Your task to perform on an android device: turn on location history Image 0: 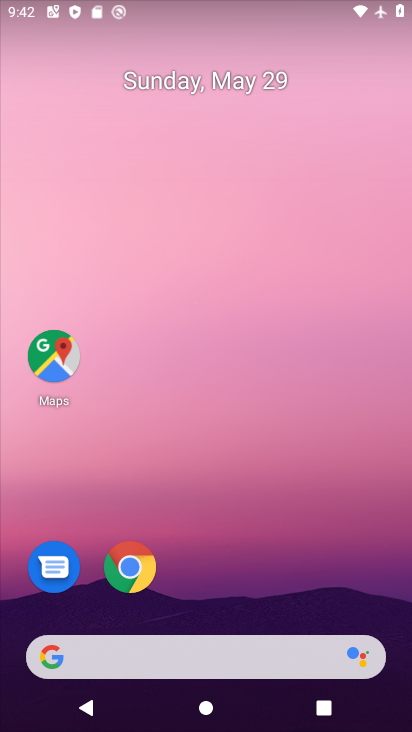
Step 0: click (55, 356)
Your task to perform on an android device: turn on location history Image 1: 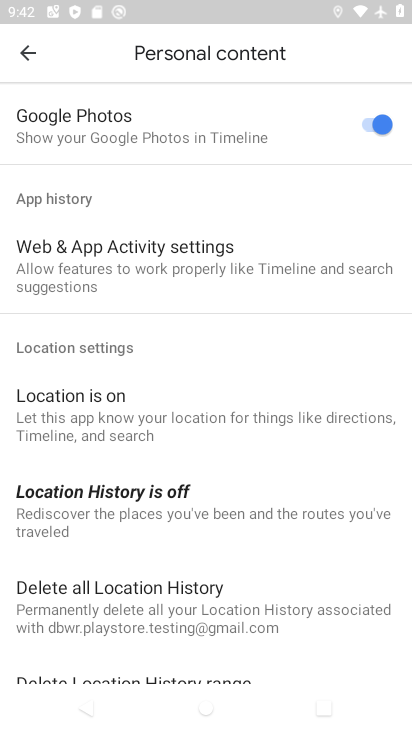
Step 1: click (79, 493)
Your task to perform on an android device: turn on location history Image 2: 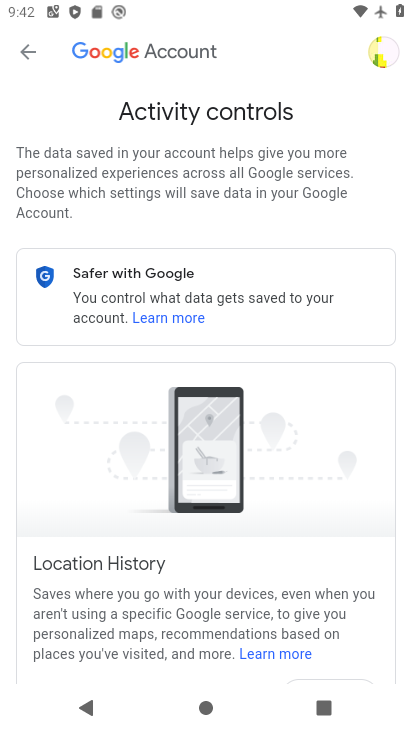
Step 2: drag from (313, 590) to (303, 137)
Your task to perform on an android device: turn on location history Image 3: 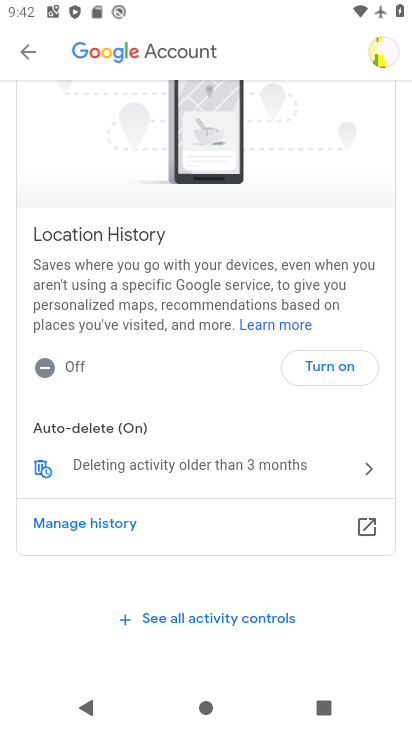
Step 3: click (325, 368)
Your task to perform on an android device: turn on location history Image 4: 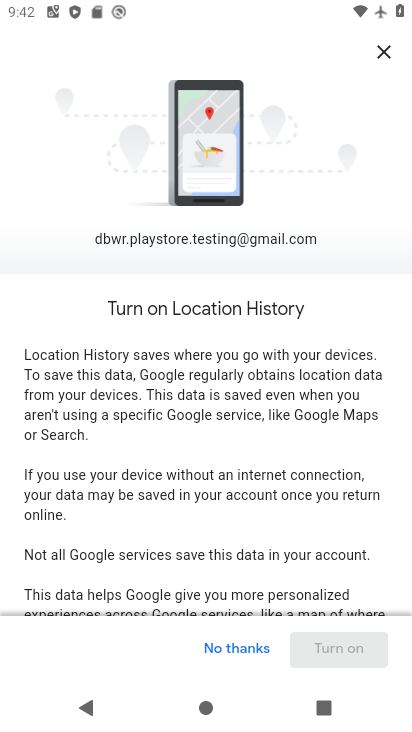
Step 4: drag from (268, 578) to (236, 125)
Your task to perform on an android device: turn on location history Image 5: 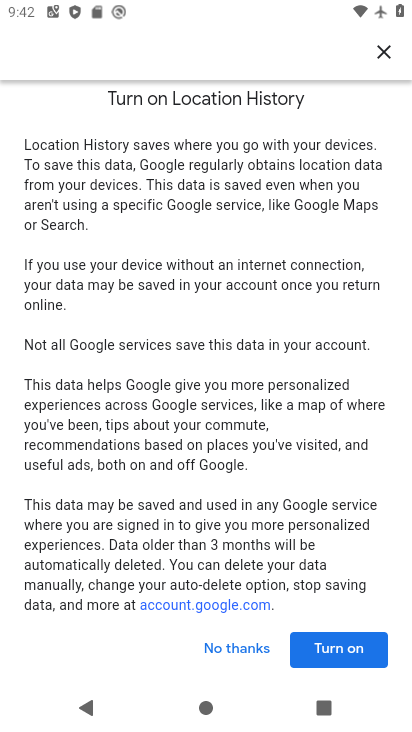
Step 5: click (337, 645)
Your task to perform on an android device: turn on location history Image 6: 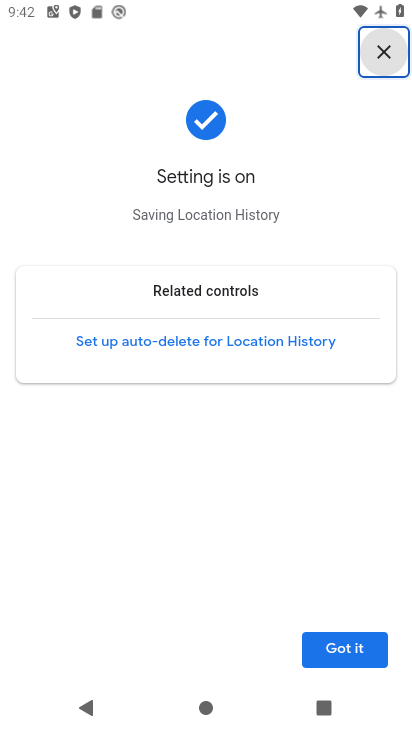
Step 6: click (339, 648)
Your task to perform on an android device: turn on location history Image 7: 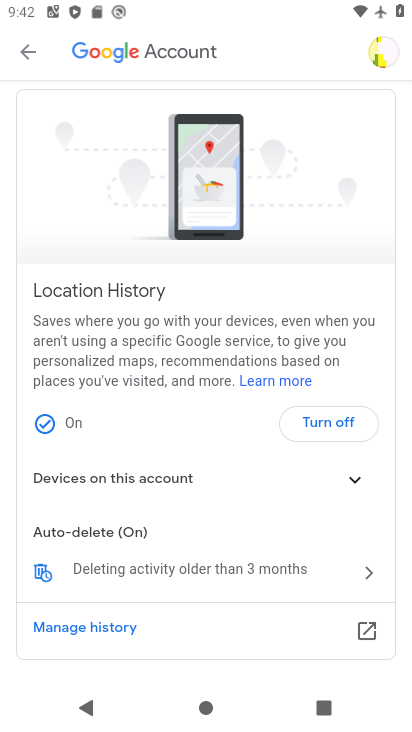
Step 7: task complete